Your task to perform on an android device: Go to Yahoo.com Image 0: 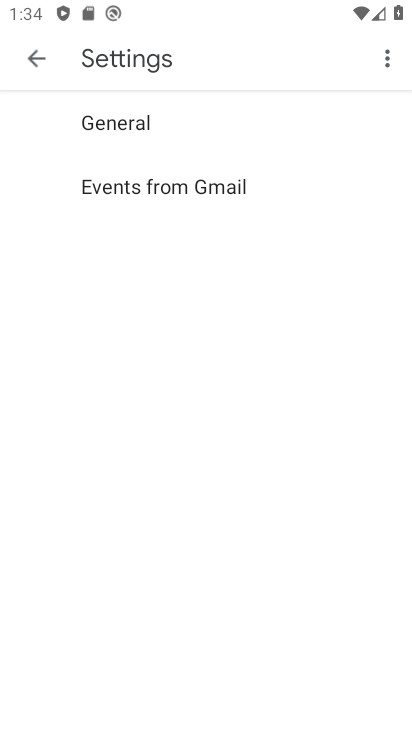
Step 0: press home button
Your task to perform on an android device: Go to Yahoo.com Image 1: 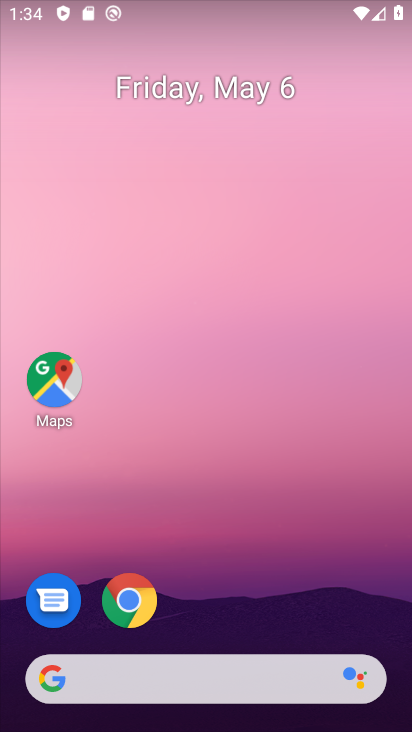
Step 1: click (129, 612)
Your task to perform on an android device: Go to Yahoo.com Image 2: 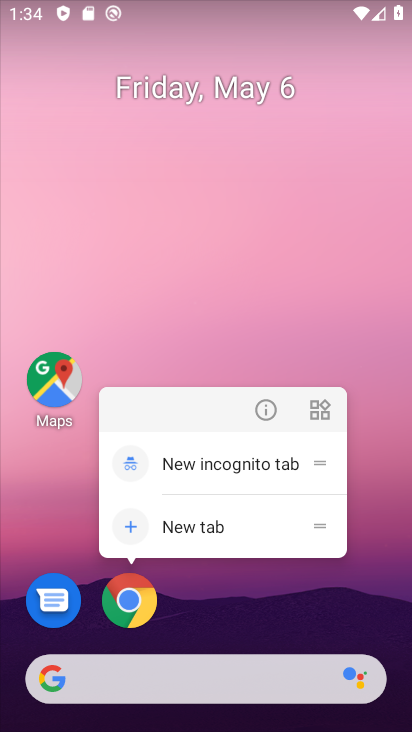
Step 2: click (135, 581)
Your task to perform on an android device: Go to Yahoo.com Image 3: 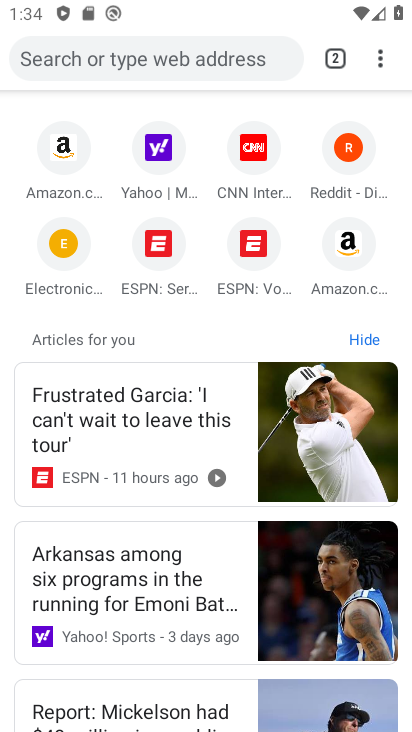
Step 3: click (152, 137)
Your task to perform on an android device: Go to Yahoo.com Image 4: 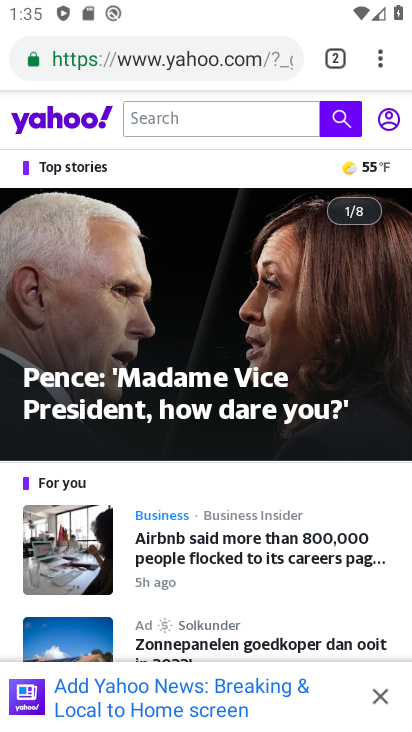
Step 4: task complete